Your task to perform on an android device: see sites visited before in the chrome app Image 0: 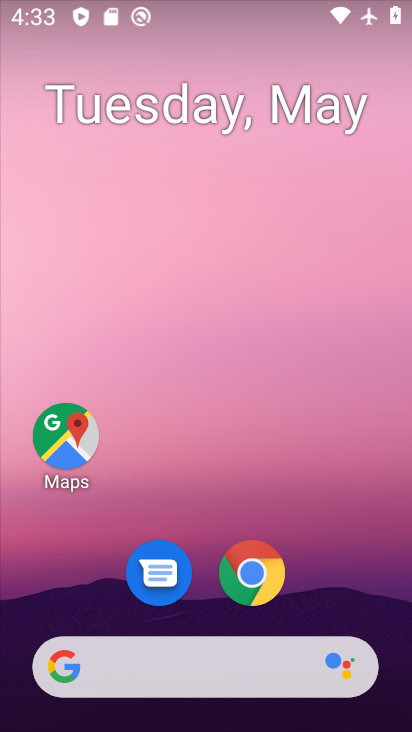
Step 0: click (246, 570)
Your task to perform on an android device: see sites visited before in the chrome app Image 1: 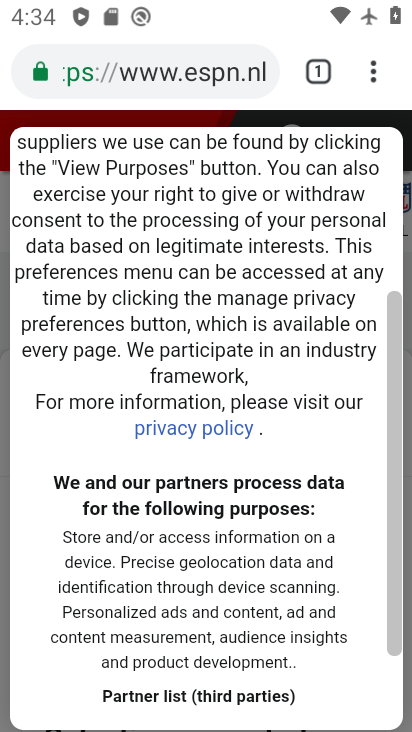
Step 1: click (379, 64)
Your task to perform on an android device: see sites visited before in the chrome app Image 2: 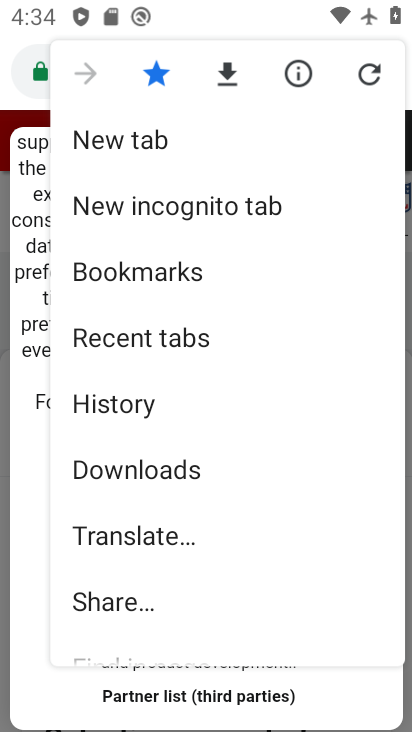
Step 2: click (144, 402)
Your task to perform on an android device: see sites visited before in the chrome app Image 3: 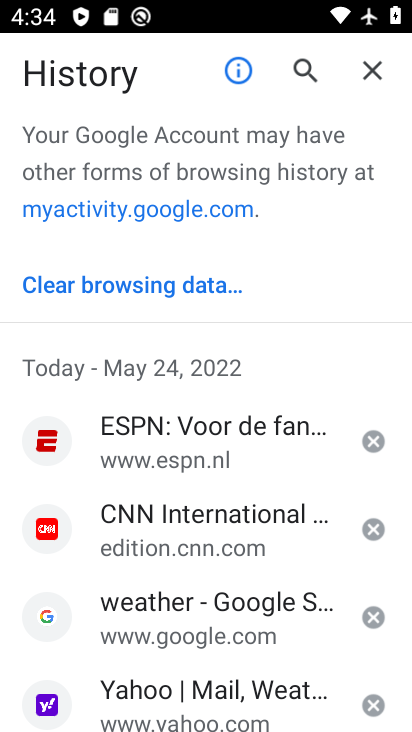
Step 3: task complete